Your task to perform on an android device: What's on my calendar today? Image 0: 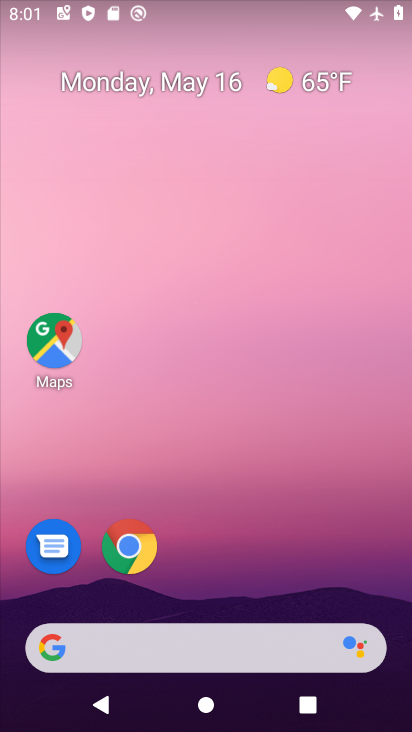
Step 0: press home button
Your task to perform on an android device: What's on my calendar today? Image 1: 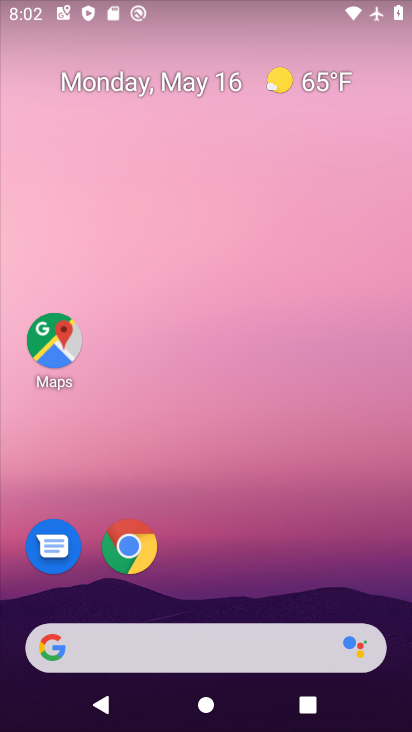
Step 1: drag from (237, 563) to (244, 69)
Your task to perform on an android device: What's on my calendar today? Image 2: 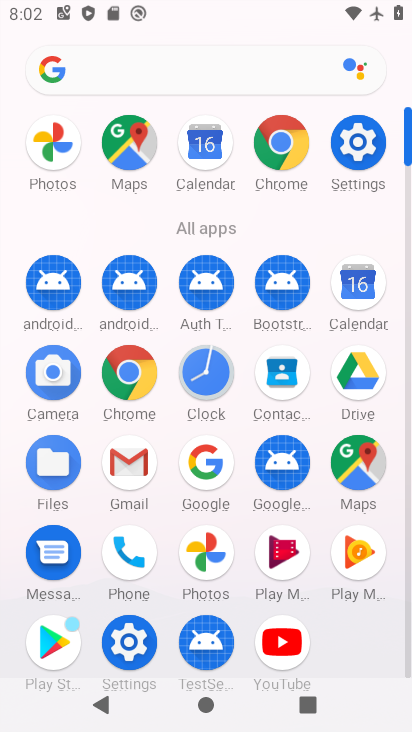
Step 2: click (335, 297)
Your task to perform on an android device: What's on my calendar today? Image 3: 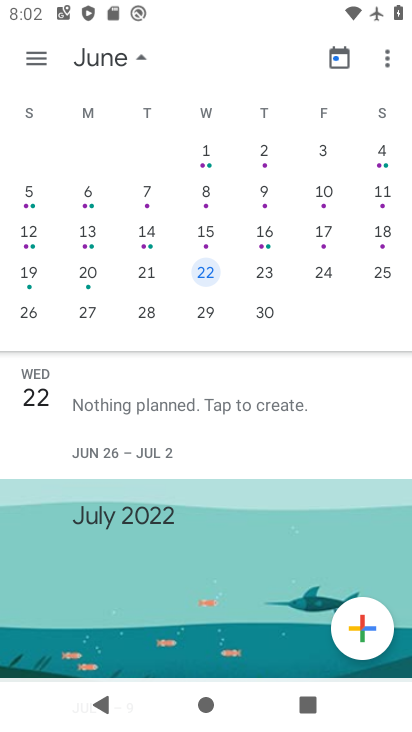
Step 3: drag from (43, 232) to (405, 246)
Your task to perform on an android device: What's on my calendar today? Image 4: 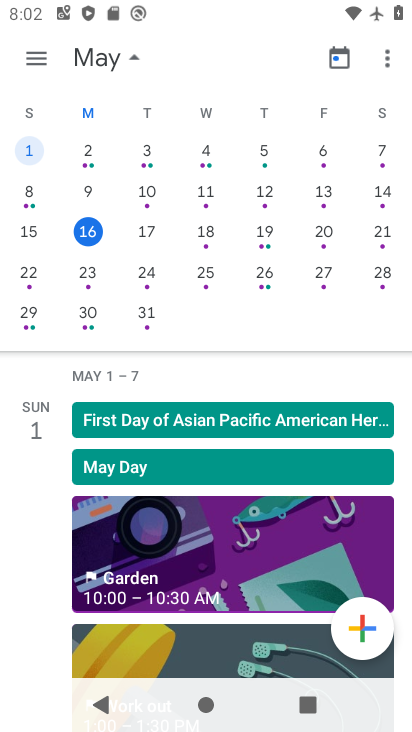
Step 4: click (143, 228)
Your task to perform on an android device: What's on my calendar today? Image 5: 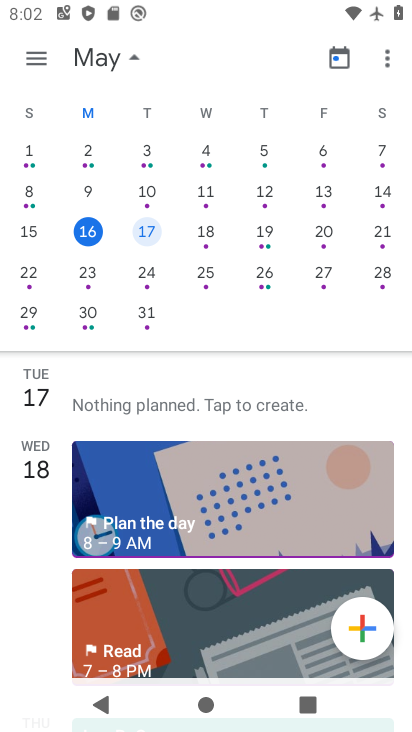
Step 5: task complete